Your task to perform on an android device: Open the calendar app, open the side menu, and click the "Day" option Image 0: 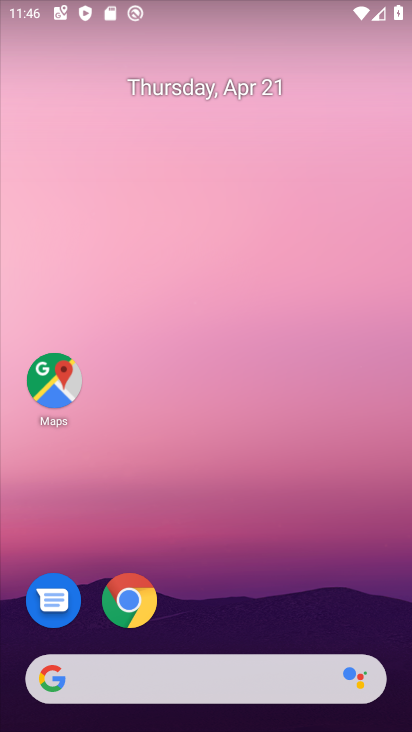
Step 0: drag from (174, 565) to (330, 56)
Your task to perform on an android device: Open the calendar app, open the side menu, and click the "Day" option Image 1: 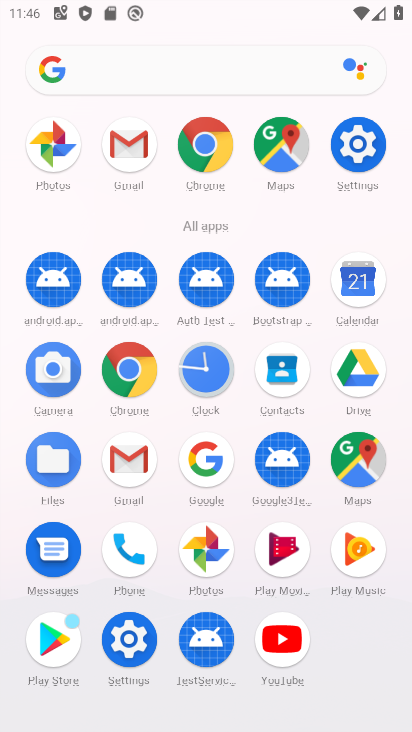
Step 1: click (360, 270)
Your task to perform on an android device: Open the calendar app, open the side menu, and click the "Day" option Image 2: 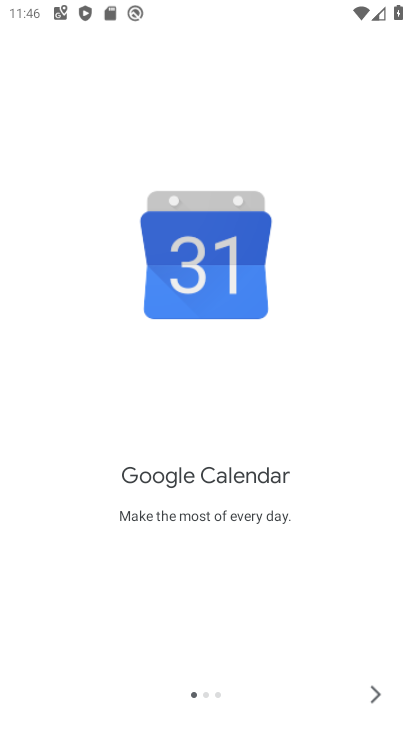
Step 2: click (361, 698)
Your task to perform on an android device: Open the calendar app, open the side menu, and click the "Day" option Image 3: 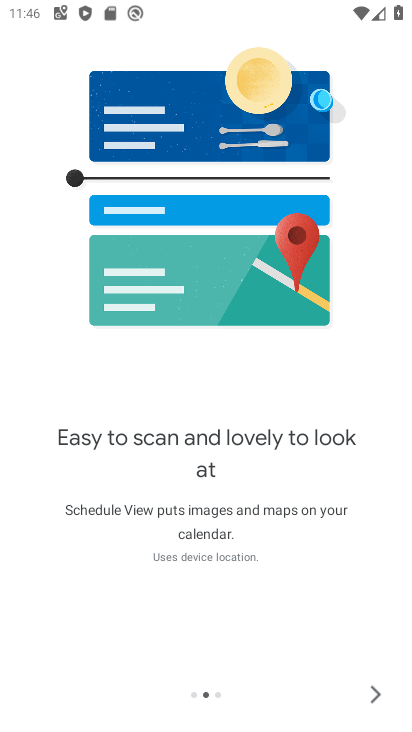
Step 3: click (363, 698)
Your task to perform on an android device: Open the calendar app, open the side menu, and click the "Day" option Image 4: 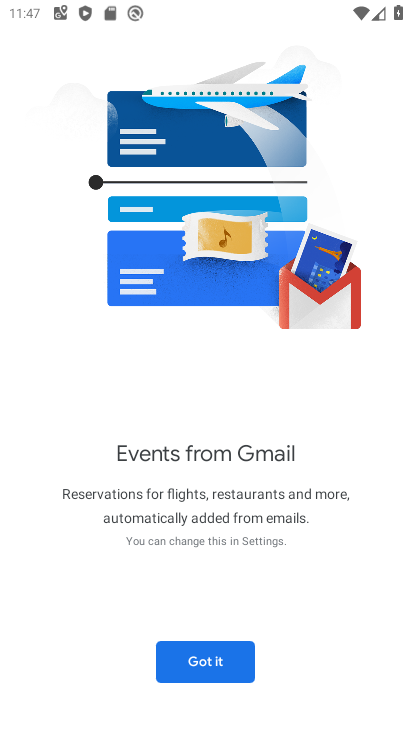
Step 4: click (244, 685)
Your task to perform on an android device: Open the calendar app, open the side menu, and click the "Day" option Image 5: 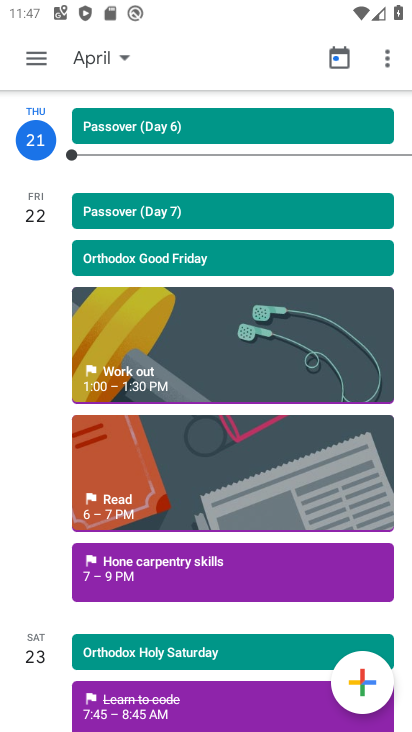
Step 5: click (28, 48)
Your task to perform on an android device: Open the calendar app, open the side menu, and click the "Day" option Image 6: 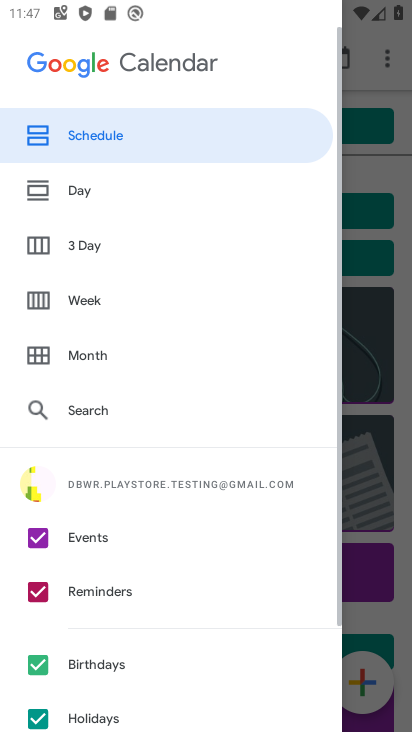
Step 6: click (135, 195)
Your task to perform on an android device: Open the calendar app, open the side menu, and click the "Day" option Image 7: 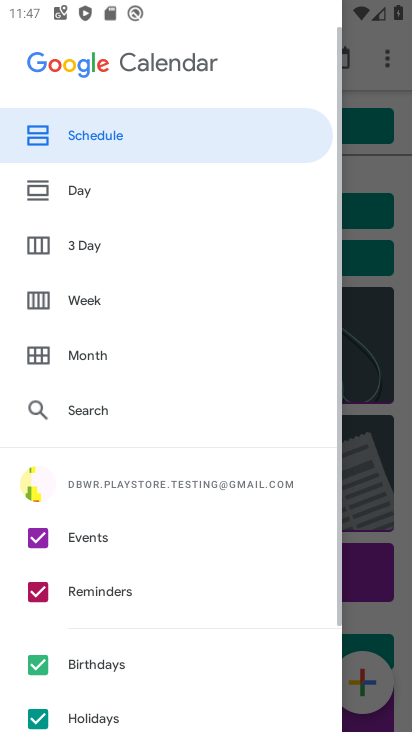
Step 7: click (135, 195)
Your task to perform on an android device: Open the calendar app, open the side menu, and click the "Day" option Image 8: 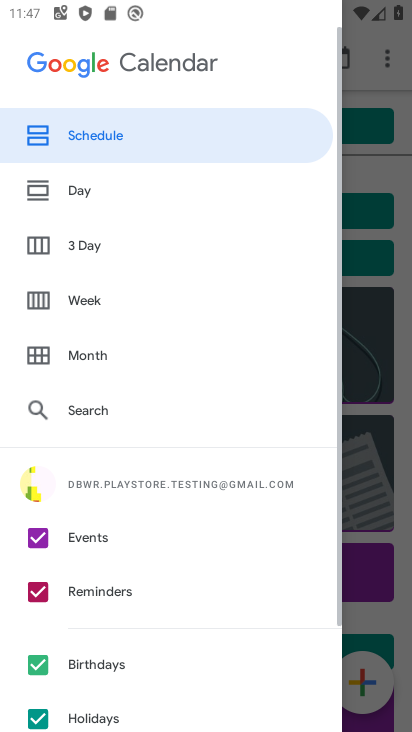
Step 8: click (77, 196)
Your task to perform on an android device: Open the calendar app, open the side menu, and click the "Day" option Image 9: 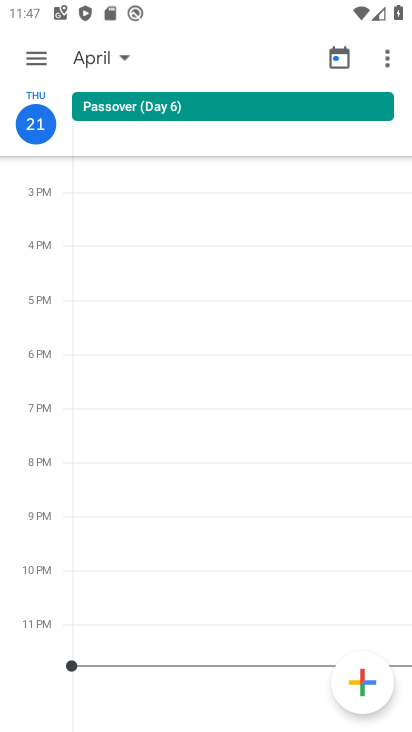
Step 9: task complete